Your task to perform on an android device: Open Google Chrome and open the bookmarks view Image 0: 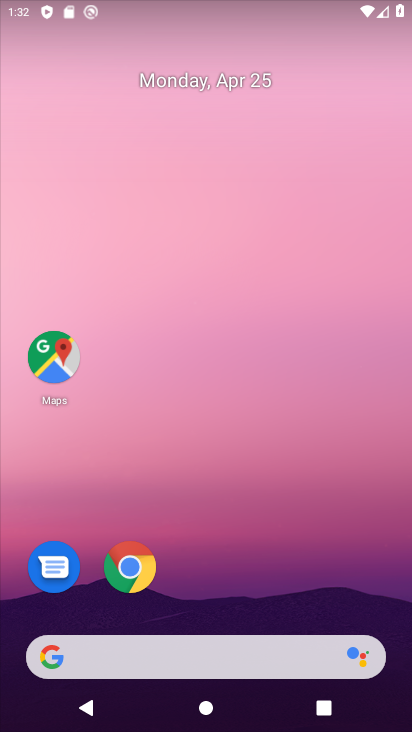
Step 0: click (128, 568)
Your task to perform on an android device: Open Google Chrome and open the bookmarks view Image 1: 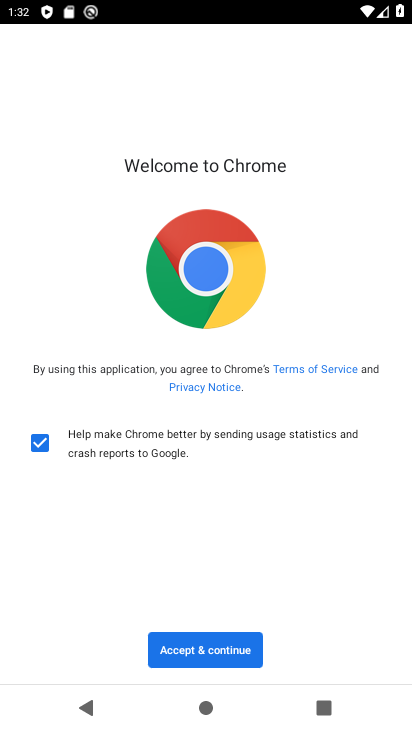
Step 1: click (211, 646)
Your task to perform on an android device: Open Google Chrome and open the bookmarks view Image 2: 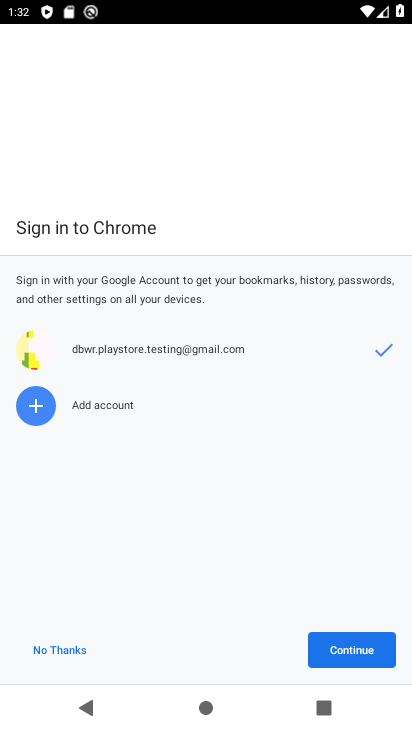
Step 2: click (348, 641)
Your task to perform on an android device: Open Google Chrome and open the bookmarks view Image 3: 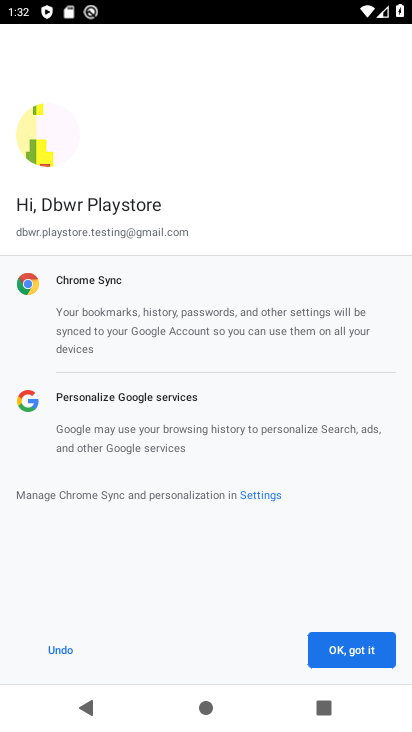
Step 3: click (348, 641)
Your task to perform on an android device: Open Google Chrome and open the bookmarks view Image 4: 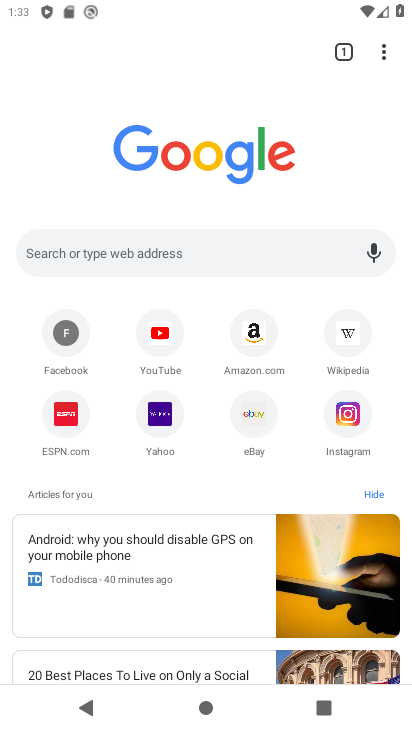
Step 4: click (379, 55)
Your task to perform on an android device: Open Google Chrome and open the bookmarks view Image 5: 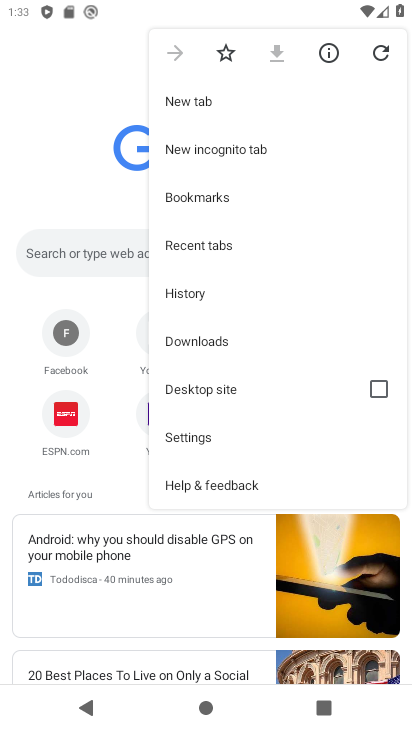
Step 5: click (188, 184)
Your task to perform on an android device: Open Google Chrome and open the bookmarks view Image 6: 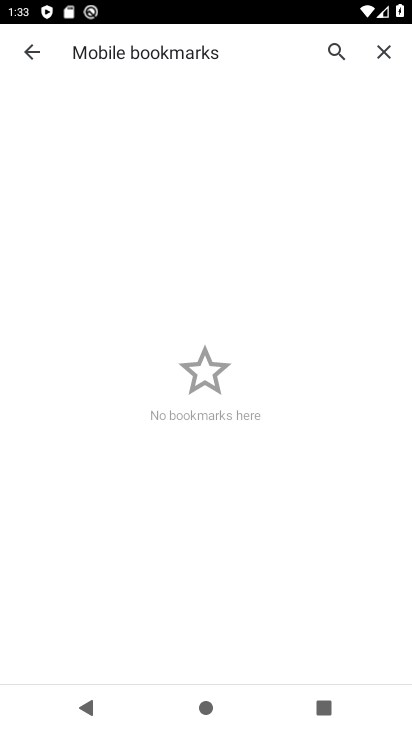
Step 6: task complete